Your task to perform on an android device: Search for sushi restaurants on Maps Image 0: 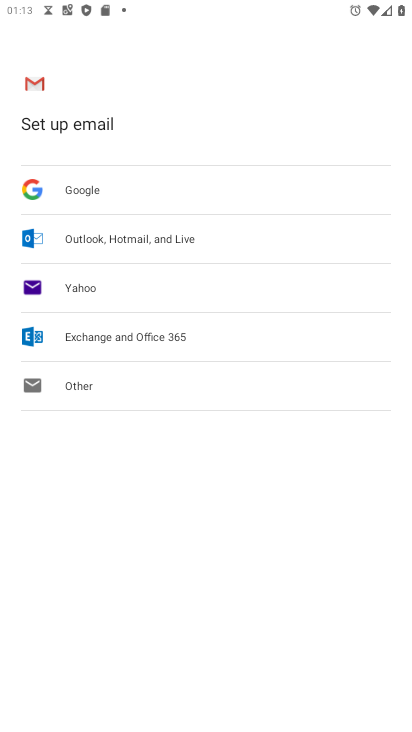
Step 0: press home button
Your task to perform on an android device: Search for sushi restaurants on Maps Image 1: 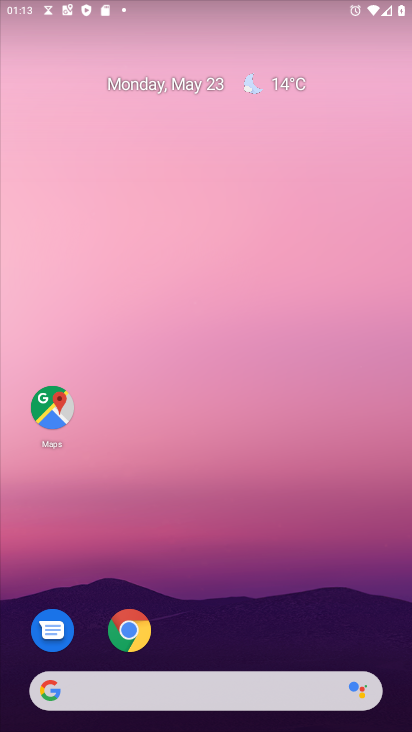
Step 1: click (47, 420)
Your task to perform on an android device: Search for sushi restaurants on Maps Image 2: 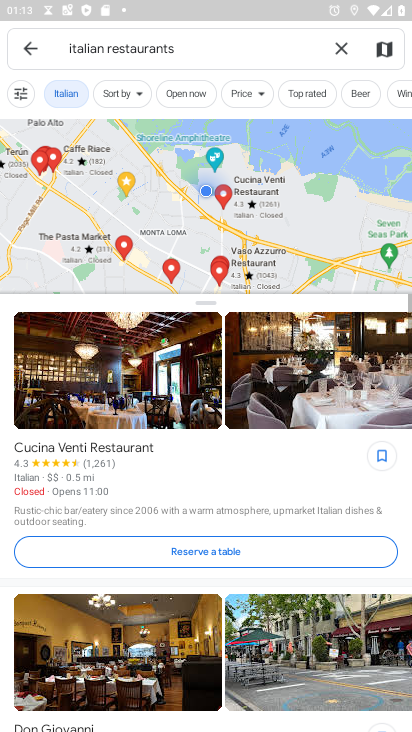
Step 2: click (332, 45)
Your task to perform on an android device: Search for sushi restaurants on Maps Image 3: 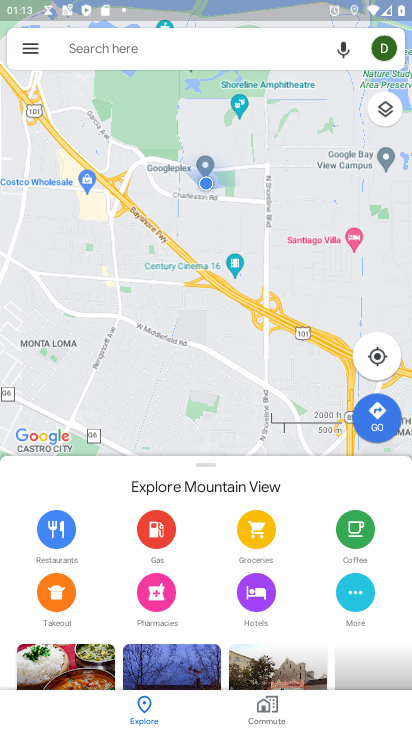
Step 3: click (187, 47)
Your task to perform on an android device: Search for sushi restaurants on Maps Image 4: 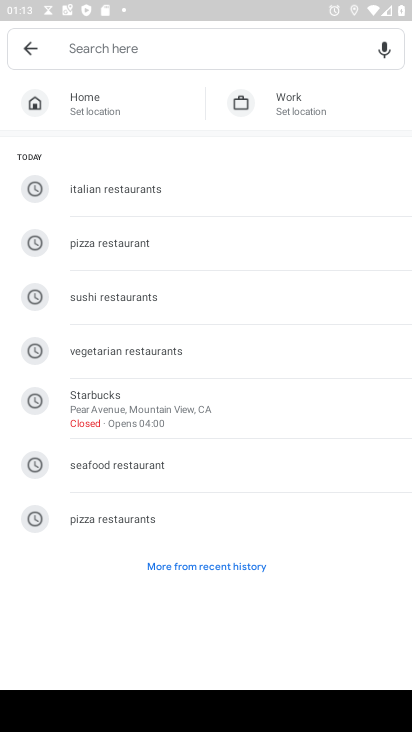
Step 4: click (168, 291)
Your task to perform on an android device: Search for sushi restaurants on Maps Image 5: 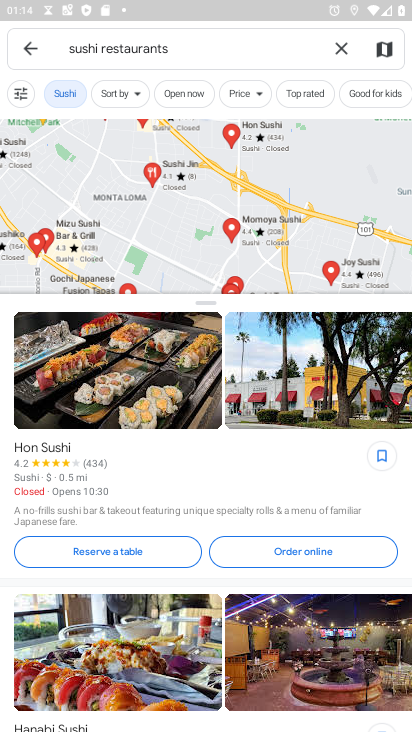
Step 5: task complete